Your task to perform on an android device: Go to Yahoo.com Image 0: 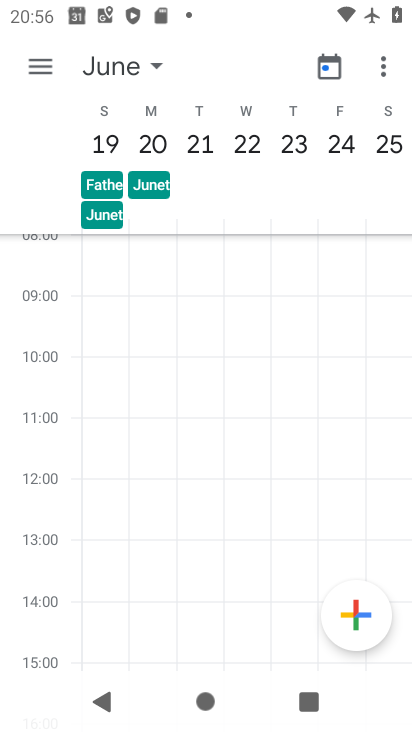
Step 0: press home button
Your task to perform on an android device: Go to Yahoo.com Image 1: 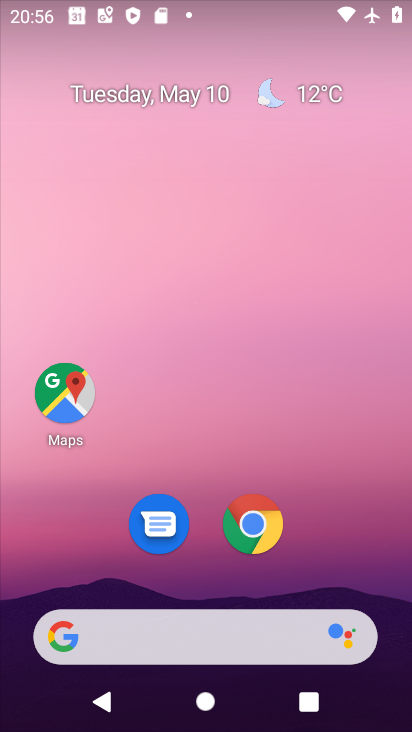
Step 1: click (225, 648)
Your task to perform on an android device: Go to Yahoo.com Image 2: 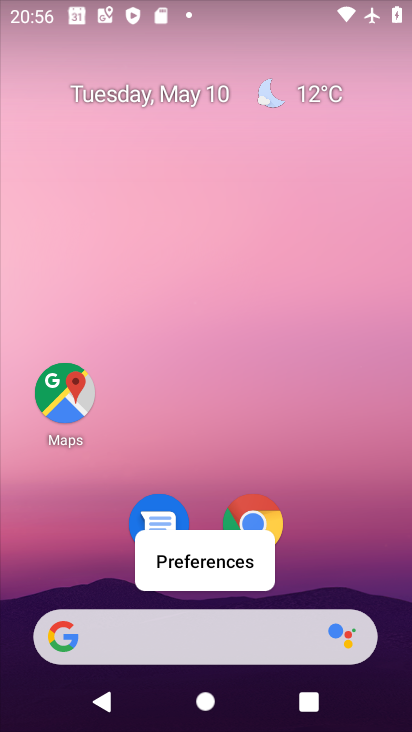
Step 2: click (241, 640)
Your task to perform on an android device: Go to Yahoo.com Image 3: 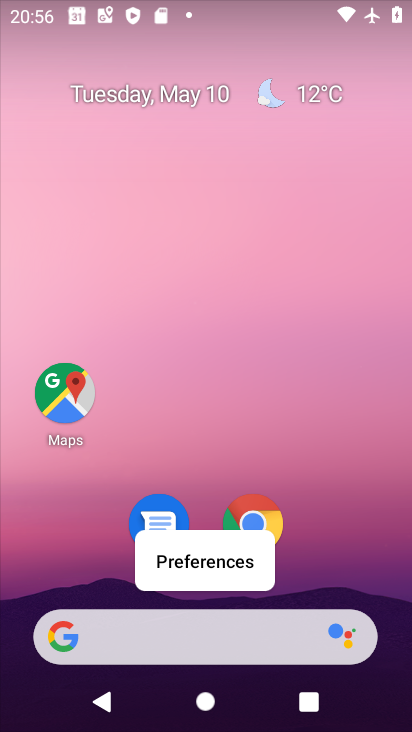
Step 3: click (241, 642)
Your task to perform on an android device: Go to Yahoo.com Image 4: 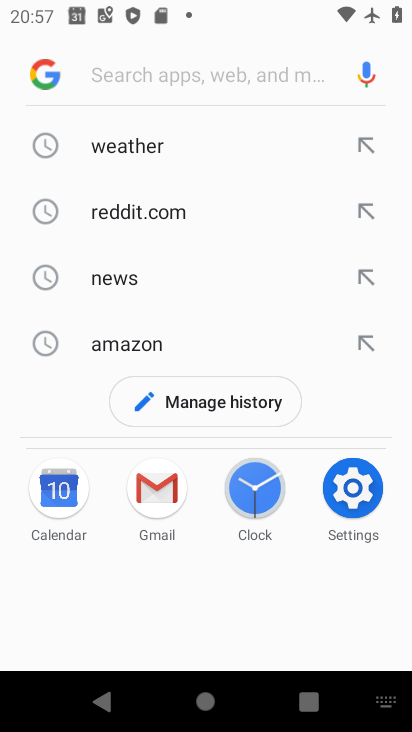
Step 4: type "yahoo.com"
Your task to perform on an android device: Go to Yahoo.com Image 5: 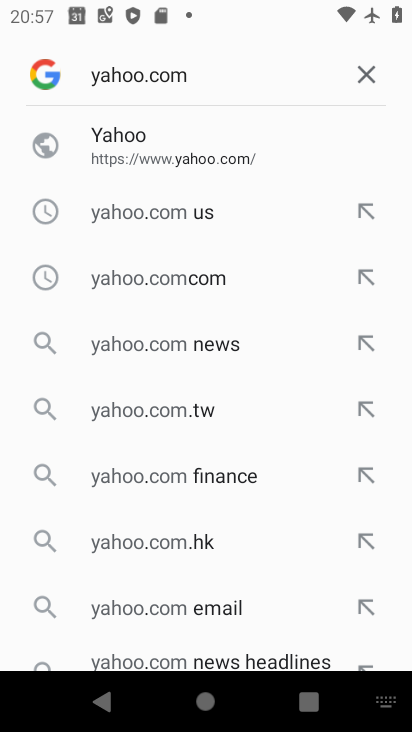
Step 5: click (130, 146)
Your task to perform on an android device: Go to Yahoo.com Image 6: 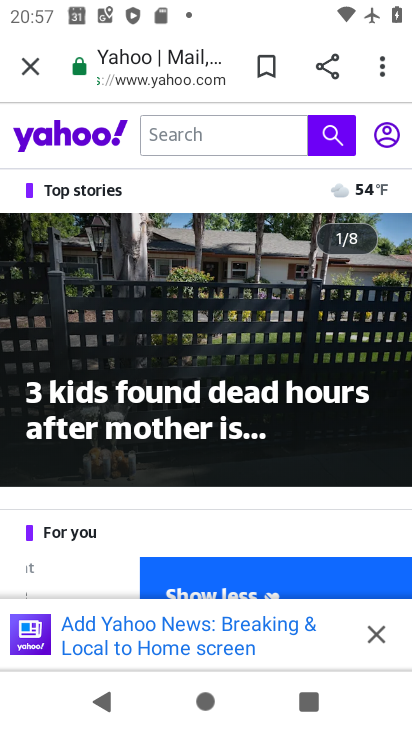
Step 6: task complete